Your task to perform on an android device: toggle data saver in the chrome app Image 0: 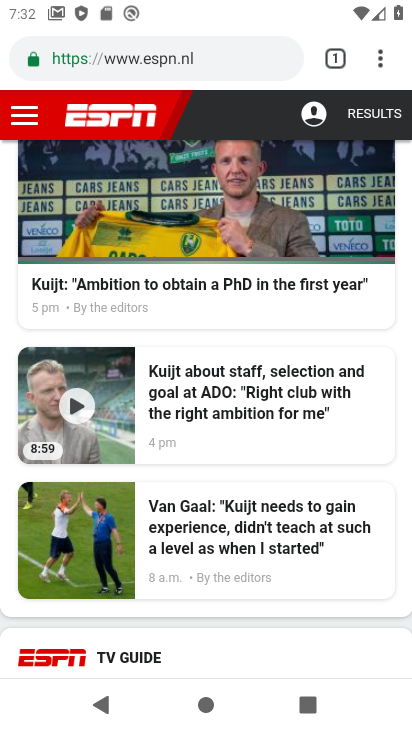
Step 0: press home button
Your task to perform on an android device: toggle data saver in the chrome app Image 1: 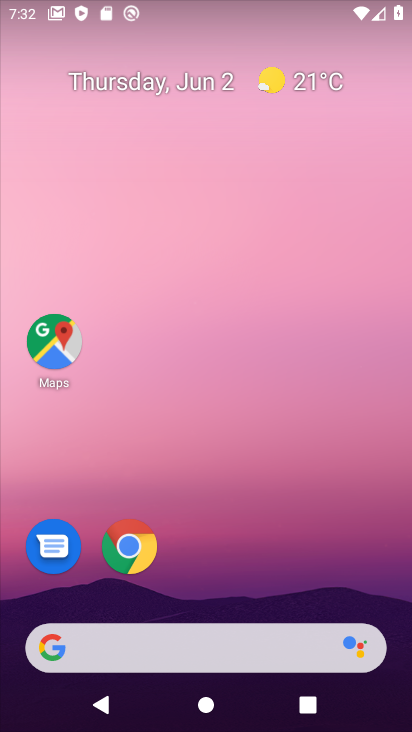
Step 1: drag from (269, 549) to (241, 99)
Your task to perform on an android device: toggle data saver in the chrome app Image 2: 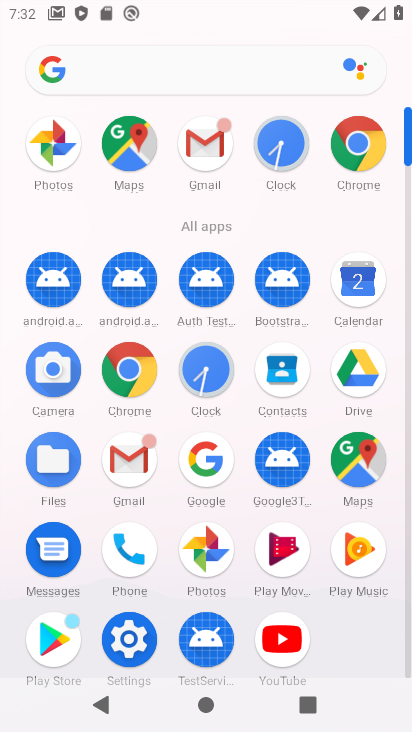
Step 2: click (368, 150)
Your task to perform on an android device: toggle data saver in the chrome app Image 3: 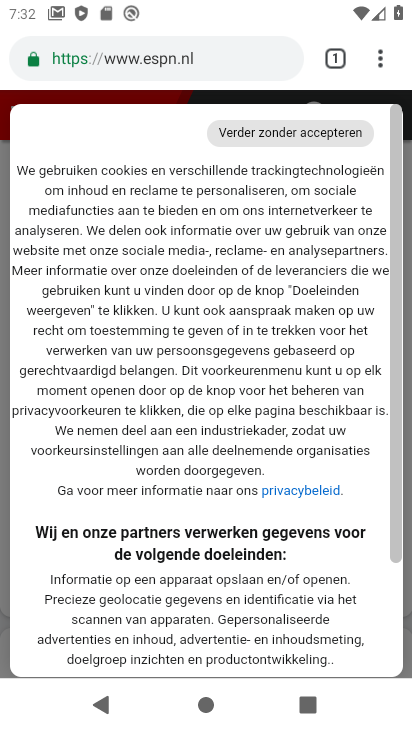
Step 3: drag from (383, 66) to (229, 569)
Your task to perform on an android device: toggle data saver in the chrome app Image 4: 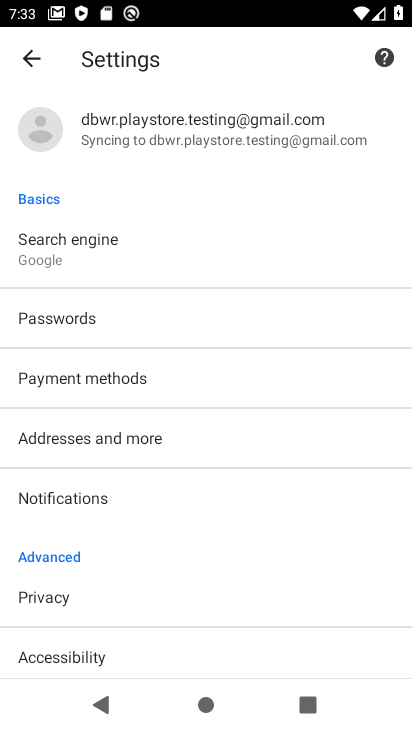
Step 4: drag from (199, 640) to (225, 246)
Your task to perform on an android device: toggle data saver in the chrome app Image 5: 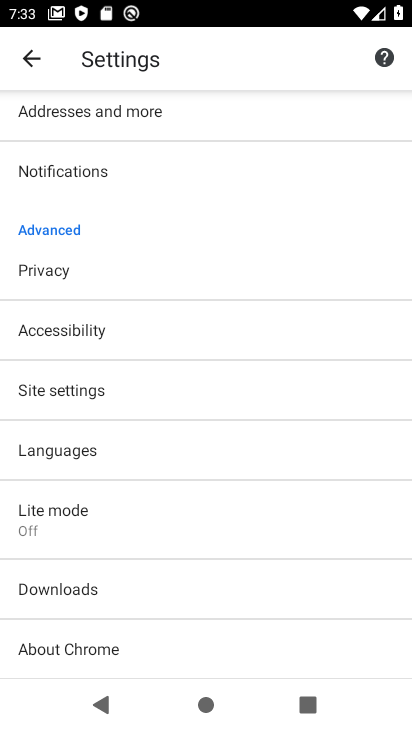
Step 5: drag from (175, 580) to (222, 289)
Your task to perform on an android device: toggle data saver in the chrome app Image 6: 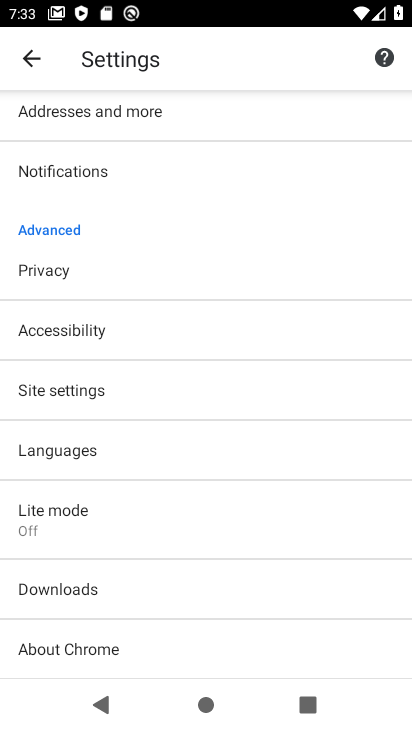
Step 6: drag from (206, 590) to (282, 323)
Your task to perform on an android device: toggle data saver in the chrome app Image 7: 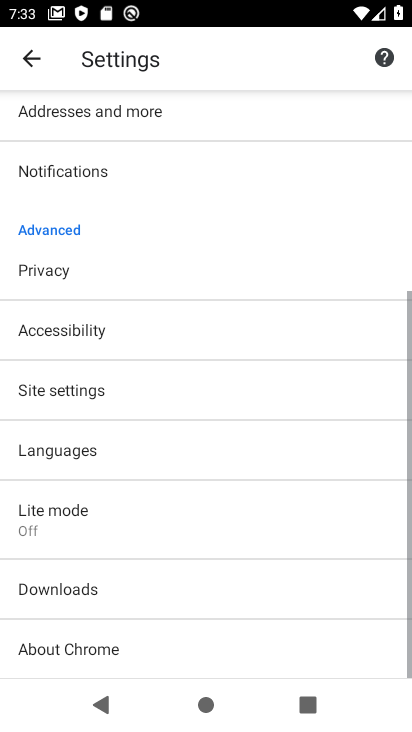
Step 7: click (56, 528)
Your task to perform on an android device: toggle data saver in the chrome app Image 8: 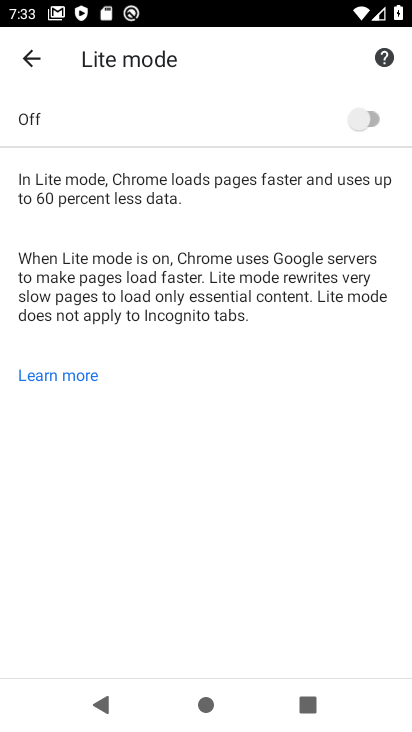
Step 8: click (376, 117)
Your task to perform on an android device: toggle data saver in the chrome app Image 9: 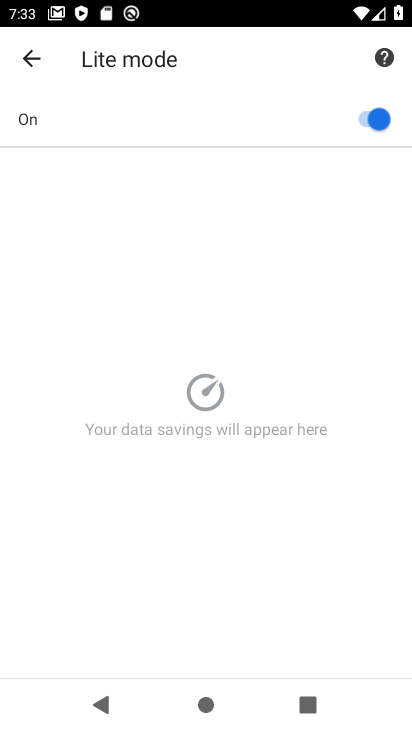
Step 9: task complete